Your task to perform on an android device: toggle show notifications on the lock screen Image 0: 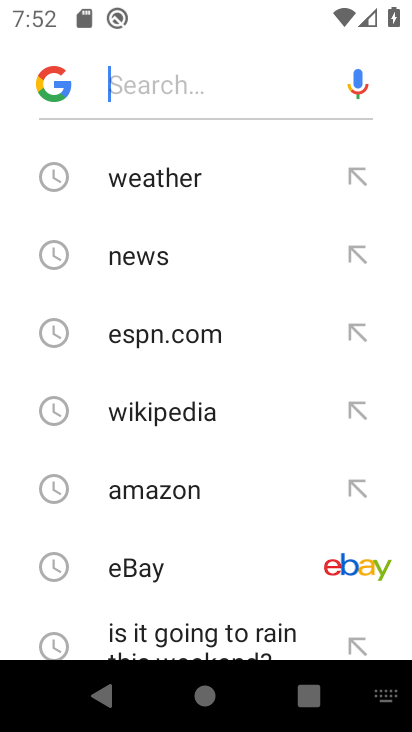
Step 0: press home button
Your task to perform on an android device: toggle show notifications on the lock screen Image 1: 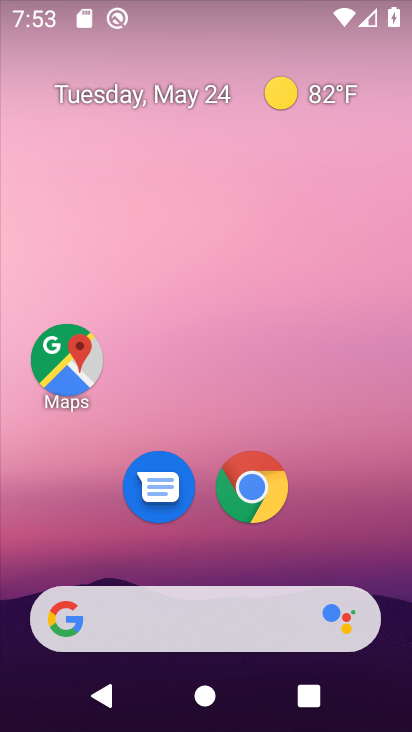
Step 1: drag from (340, 487) to (356, 118)
Your task to perform on an android device: toggle show notifications on the lock screen Image 2: 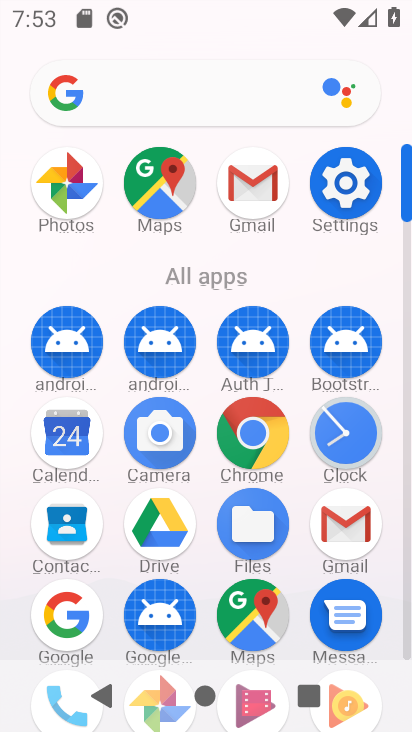
Step 2: click (356, 199)
Your task to perform on an android device: toggle show notifications on the lock screen Image 3: 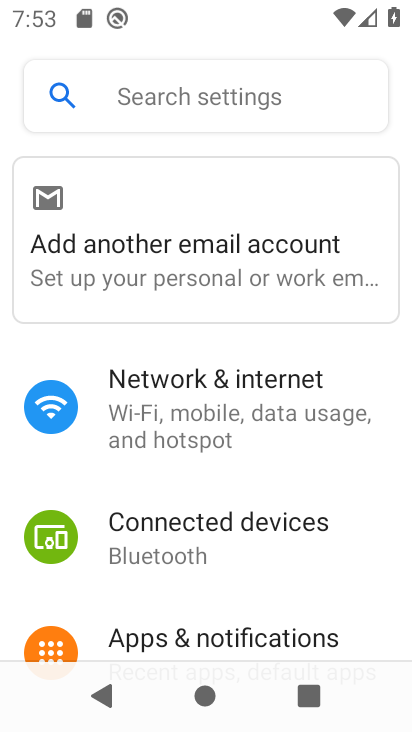
Step 3: click (207, 633)
Your task to perform on an android device: toggle show notifications on the lock screen Image 4: 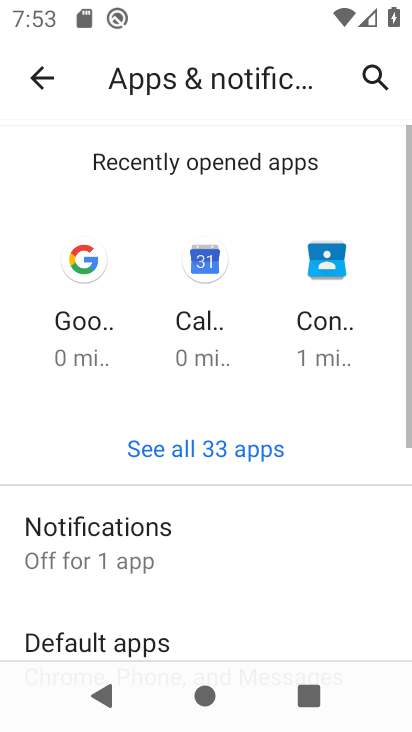
Step 4: click (181, 541)
Your task to perform on an android device: toggle show notifications on the lock screen Image 5: 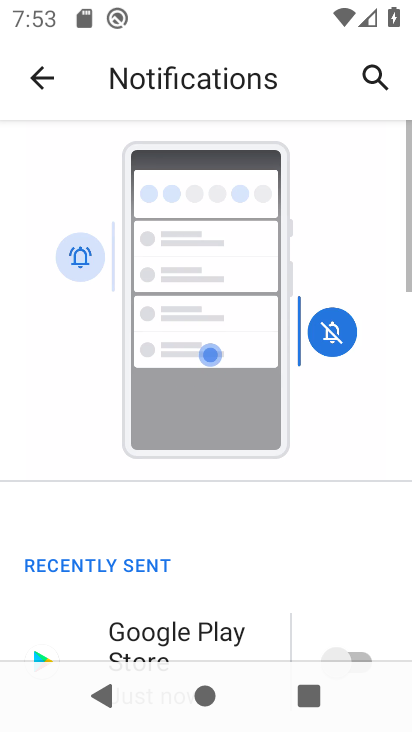
Step 5: drag from (200, 582) to (330, 170)
Your task to perform on an android device: toggle show notifications on the lock screen Image 6: 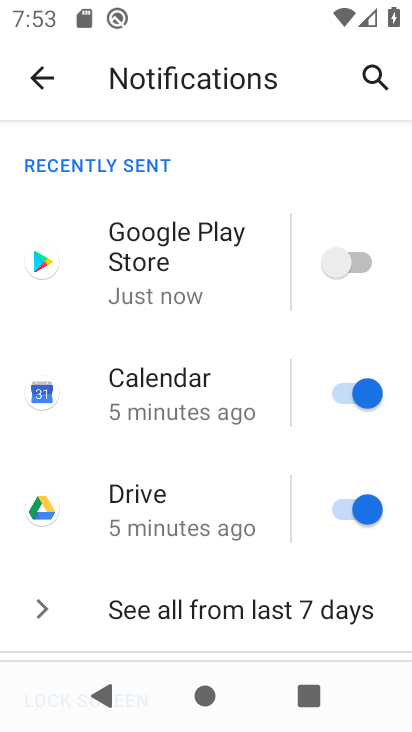
Step 6: drag from (253, 507) to (249, 227)
Your task to perform on an android device: toggle show notifications on the lock screen Image 7: 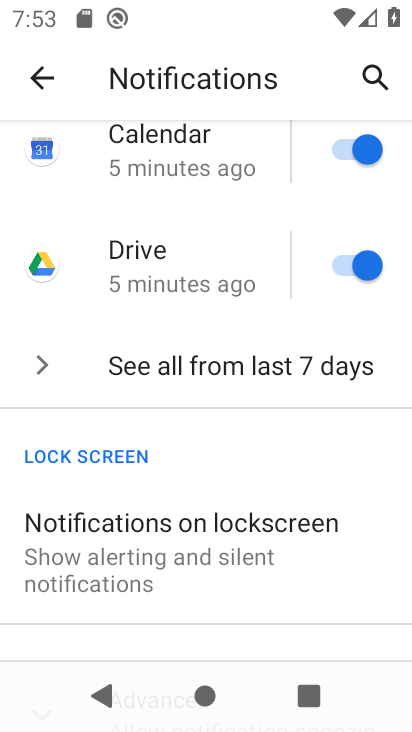
Step 7: click (203, 549)
Your task to perform on an android device: toggle show notifications on the lock screen Image 8: 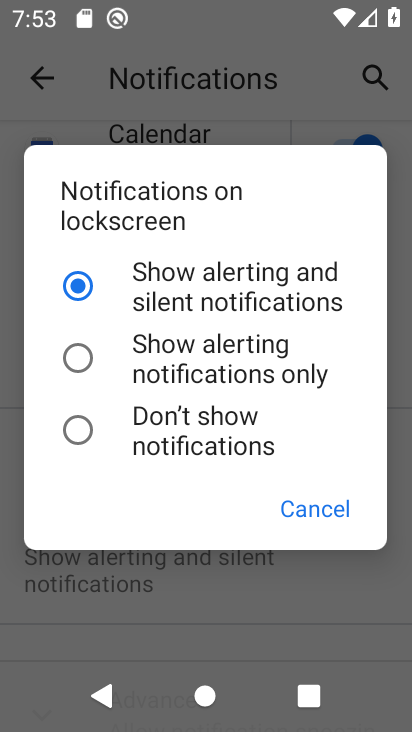
Step 8: click (71, 426)
Your task to perform on an android device: toggle show notifications on the lock screen Image 9: 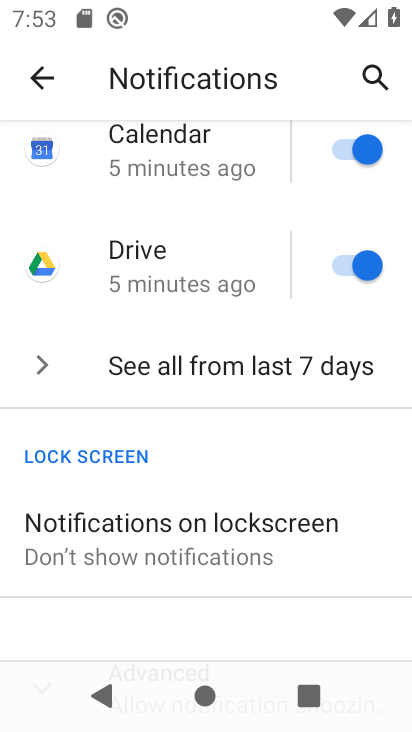
Step 9: task complete